Your task to perform on an android device: install app "ZOOM Cloud Meetings" Image 0: 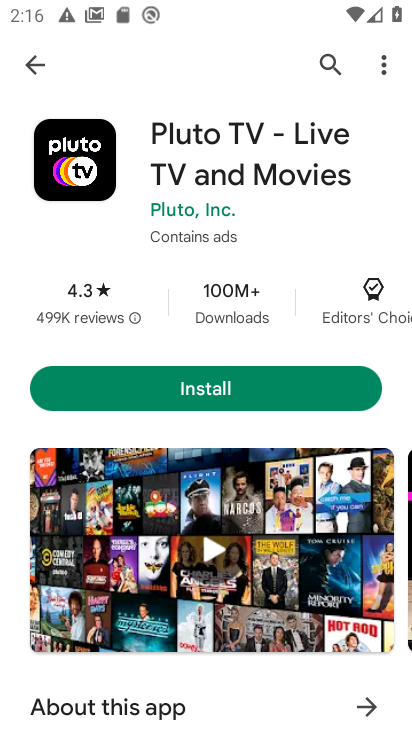
Step 0: click (324, 50)
Your task to perform on an android device: install app "ZOOM Cloud Meetings" Image 1: 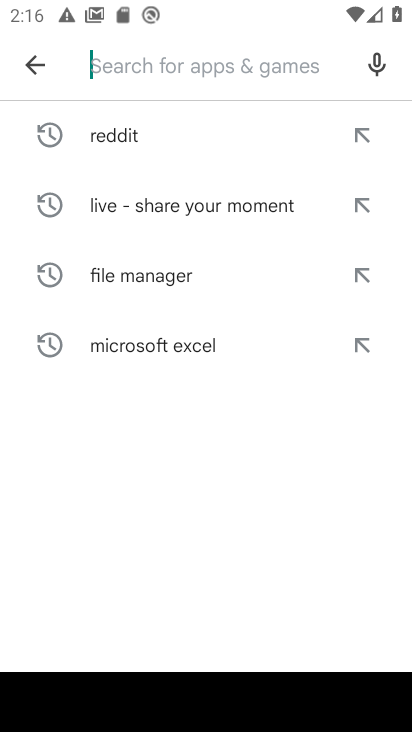
Step 1: type "ZOOM Cloud Meetings"
Your task to perform on an android device: install app "ZOOM Cloud Meetings" Image 2: 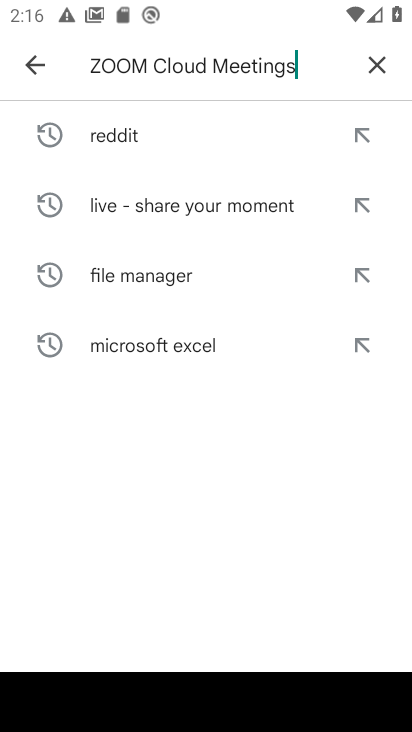
Step 2: type ""
Your task to perform on an android device: install app "ZOOM Cloud Meetings" Image 3: 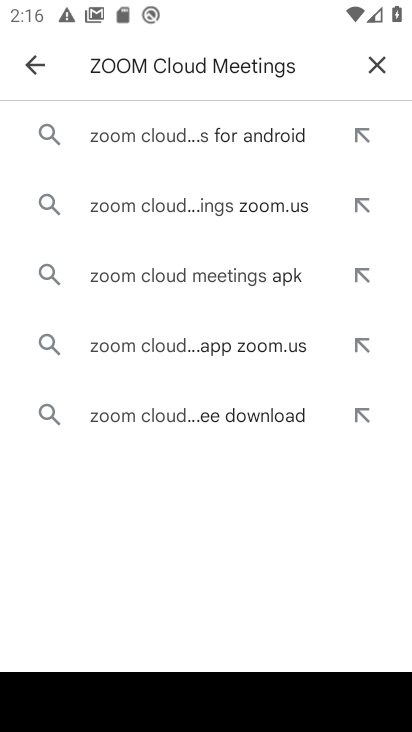
Step 3: click (193, 141)
Your task to perform on an android device: install app "ZOOM Cloud Meetings" Image 4: 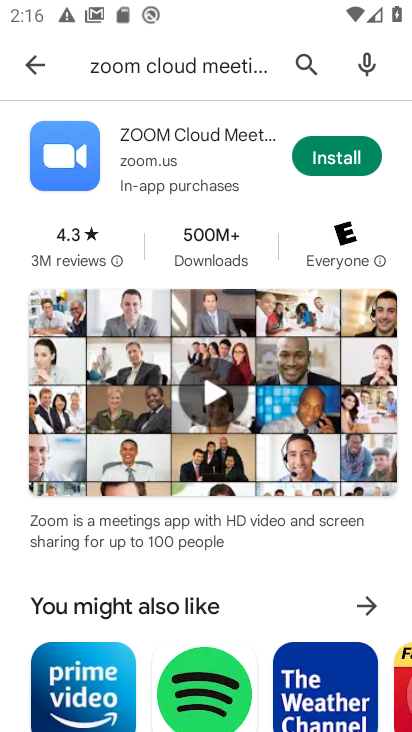
Step 4: click (314, 156)
Your task to perform on an android device: install app "ZOOM Cloud Meetings" Image 5: 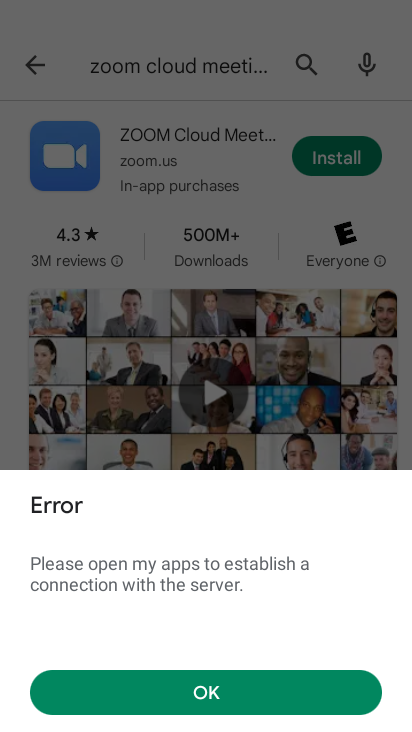
Step 5: task complete